Your task to perform on an android device: turn on the 24-hour format for clock Image 0: 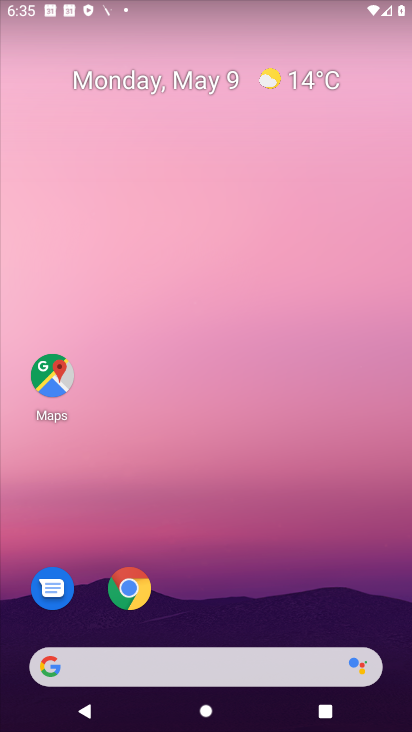
Step 0: drag from (279, 590) to (284, 22)
Your task to perform on an android device: turn on the 24-hour format for clock Image 1: 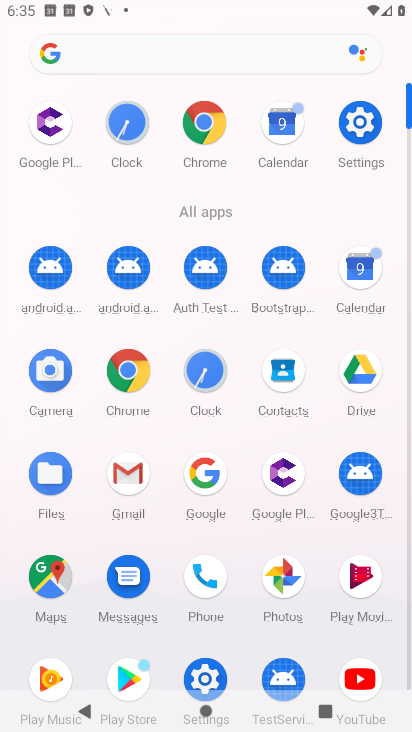
Step 1: click (205, 370)
Your task to perform on an android device: turn on the 24-hour format for clock Image 2: 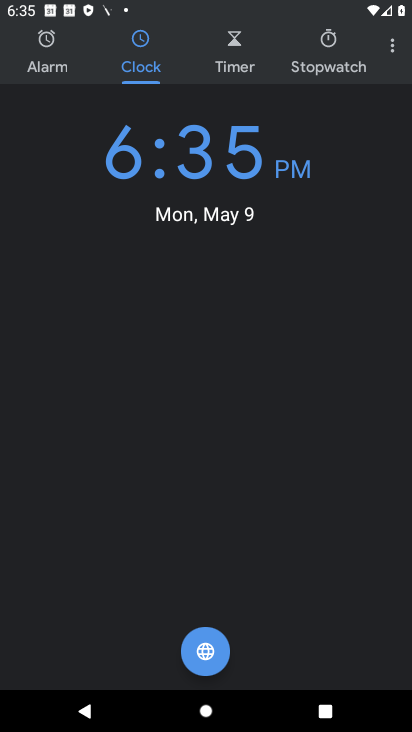
Step 2: click (390, 43)
Your task to perform on an android device: turn on the 24-hour format for clock Image 3: 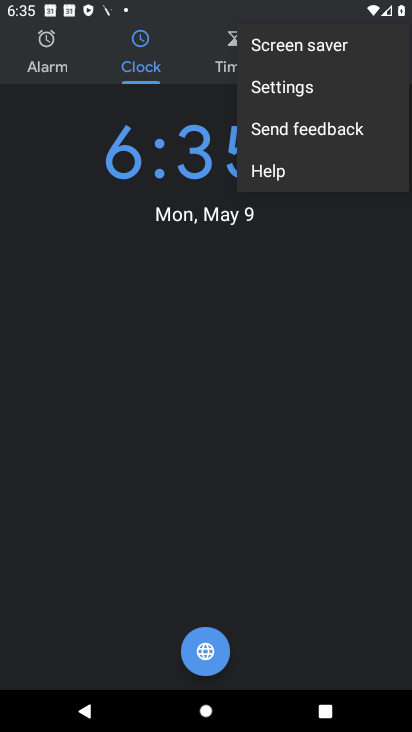
Step 3: click (304, 95)
Your task to perform on an android device: turn on the 24-hour format for clock Image 4: 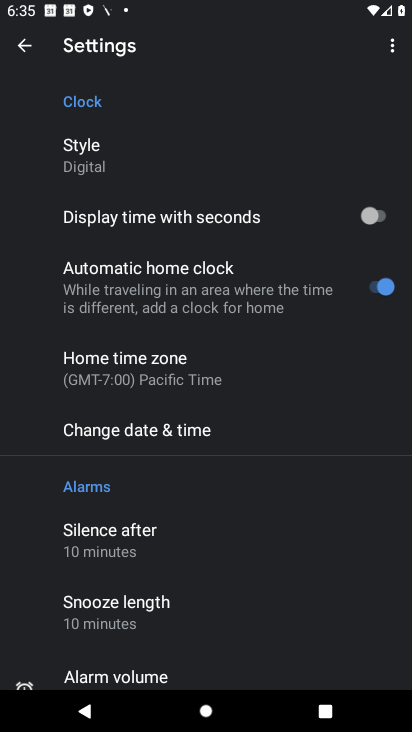
Step 4: click (179, 420)
Your task to perform on an android device: turn on the 24-hour format for clock Image 5: 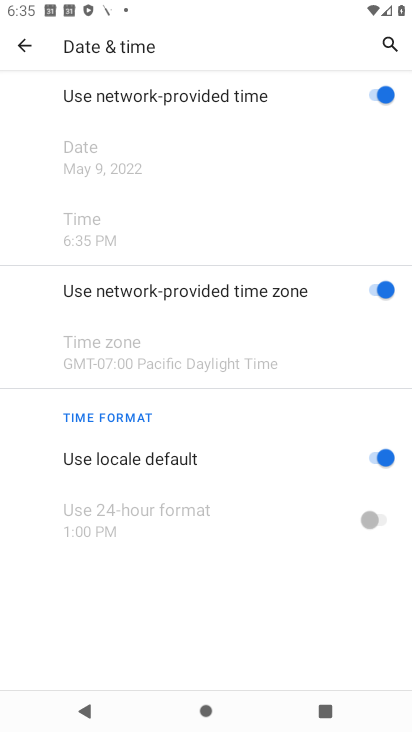
Step 5: task complete